Your task to perform on an android device: Open Chrome and go to settings Image 0: 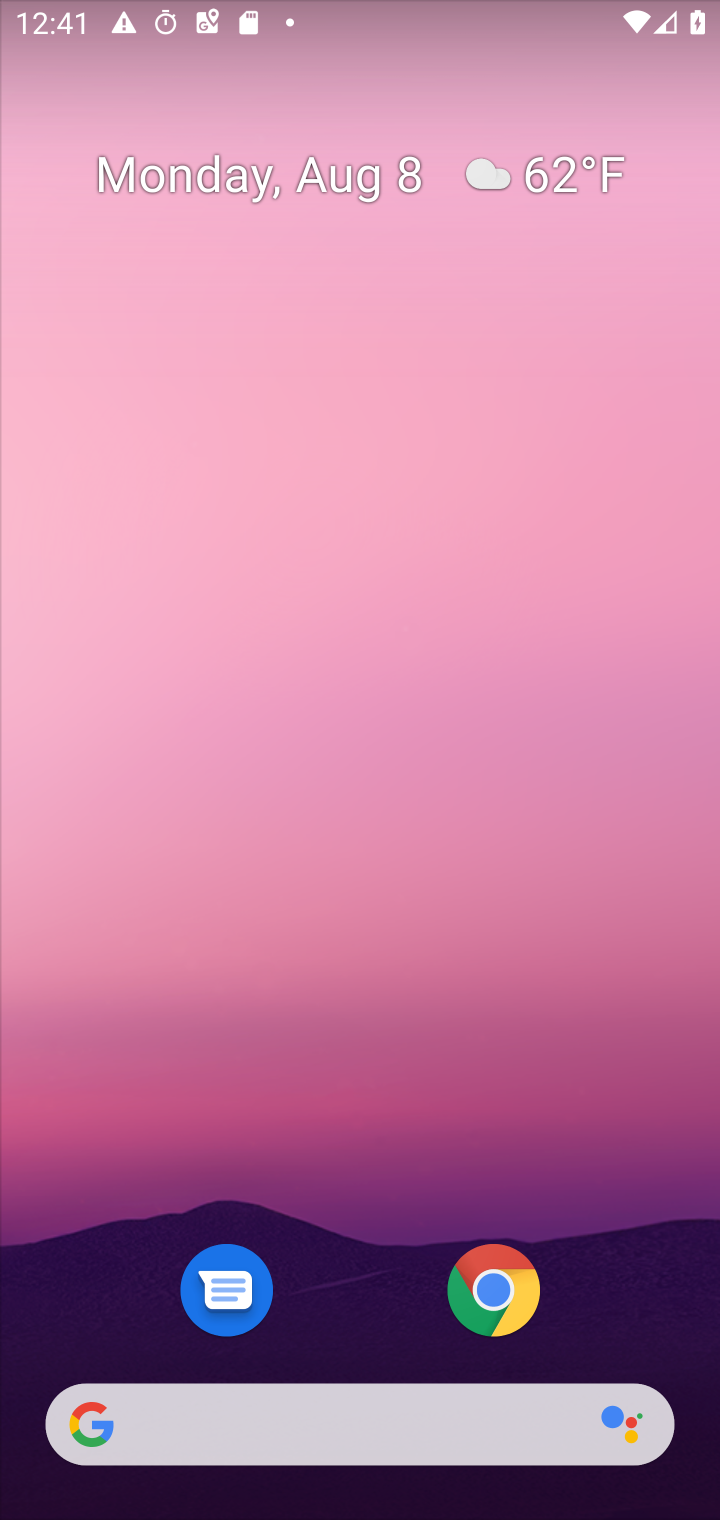
Step 0: press home button
Your task to perform on an android device: Open Chrome and go to settings Image 1: 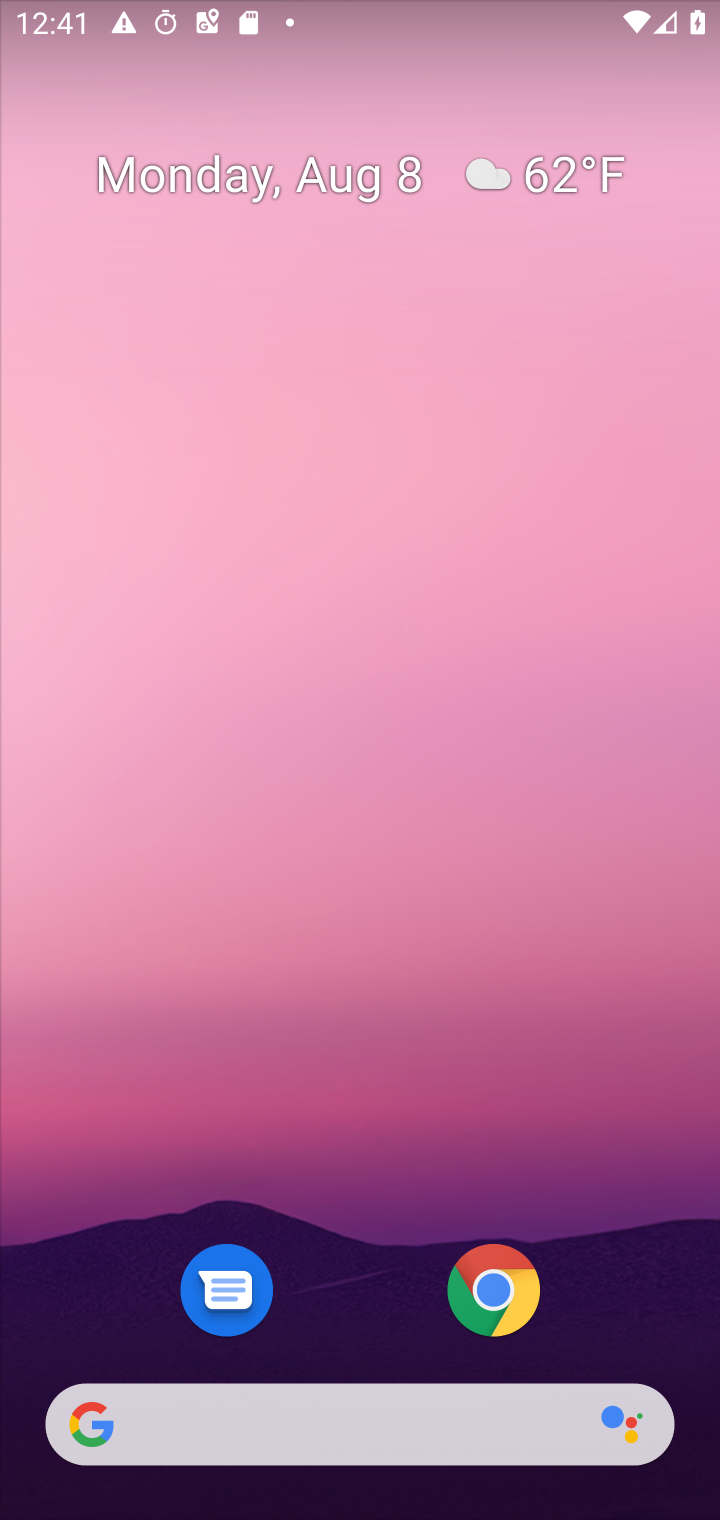
Step 1: click (477, 1279)
Your task to perform on an android device: Open Chrome and go to settings Image 2: 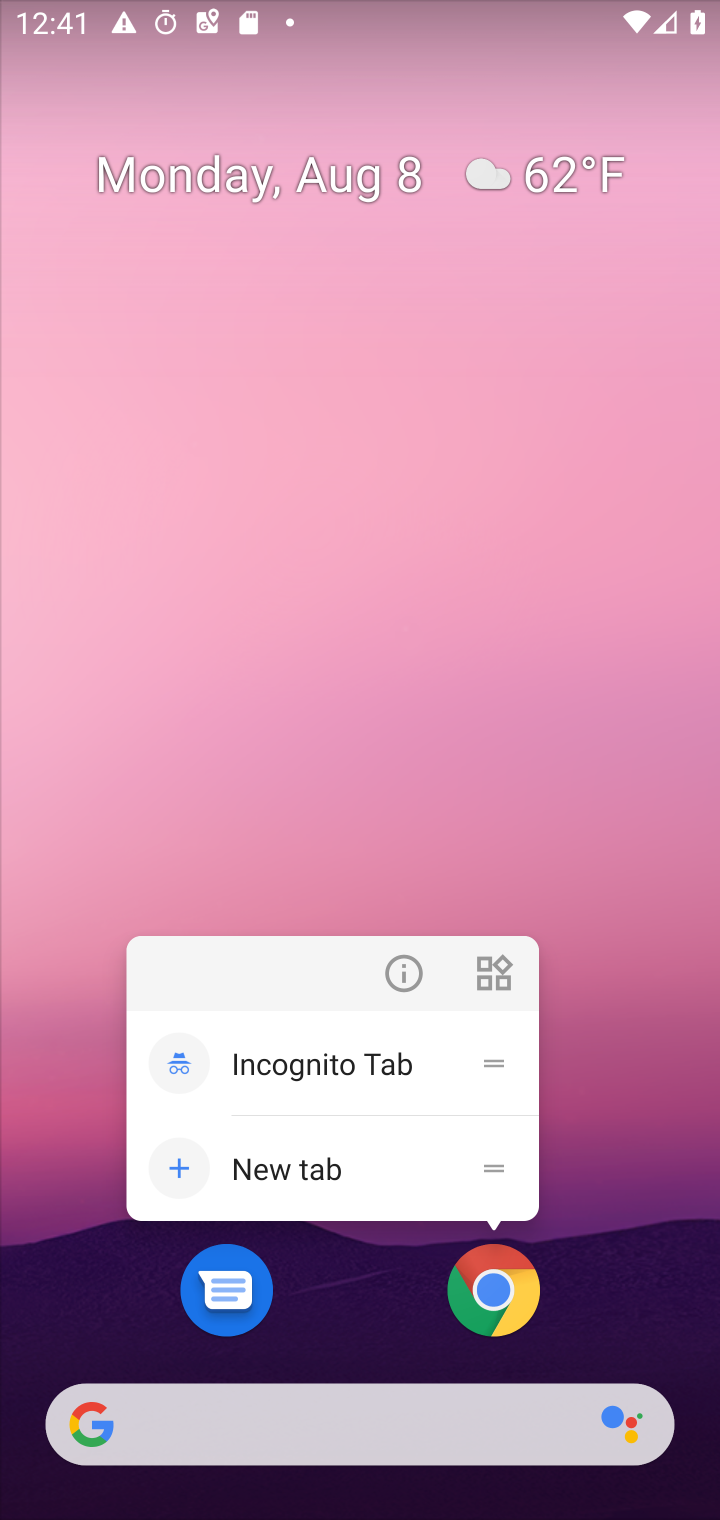
Step 2: click (483, 1279)
Your task to perform on an android device: Open Chrome and go to settings Image 3: 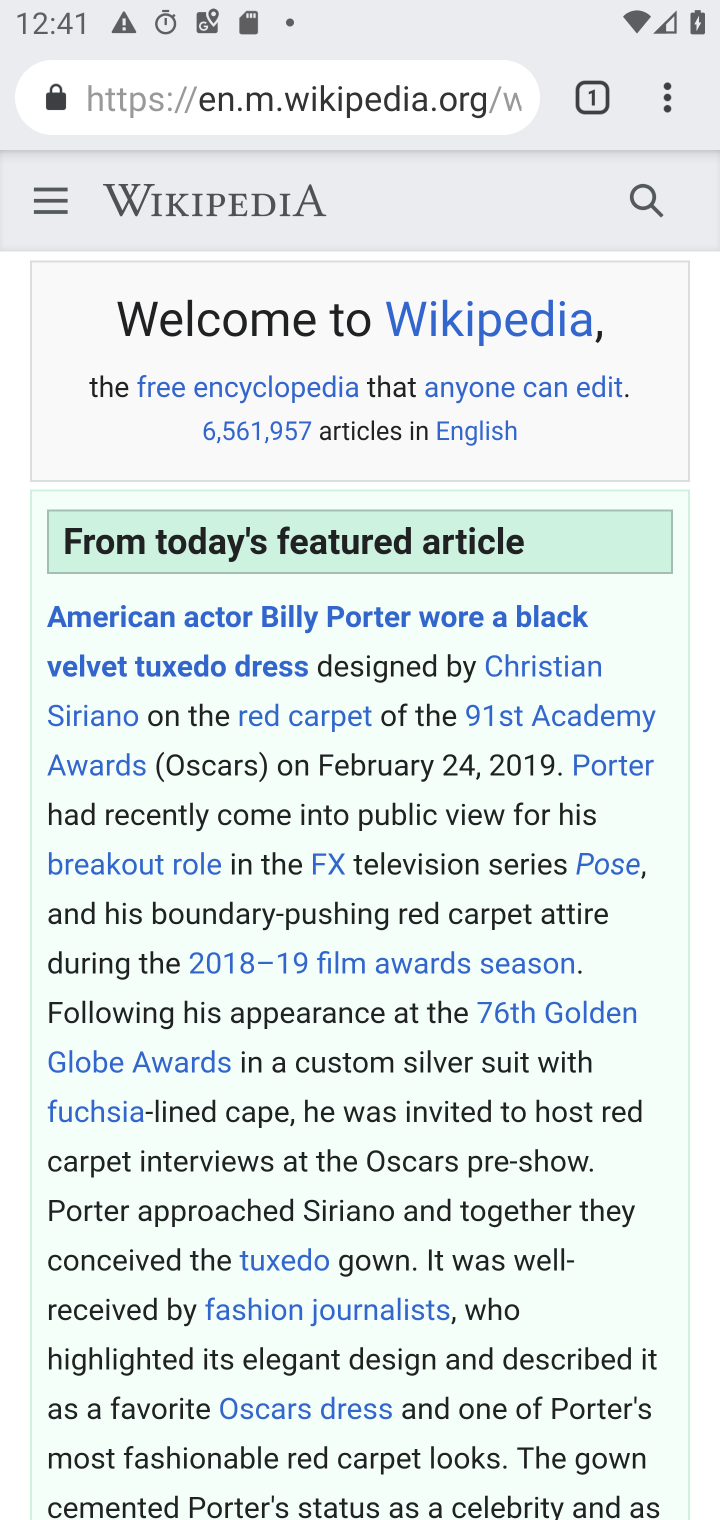
Step 3: click (671, 100)
Your task to perform on an android device: Open Chrome and go to settings Image 4: 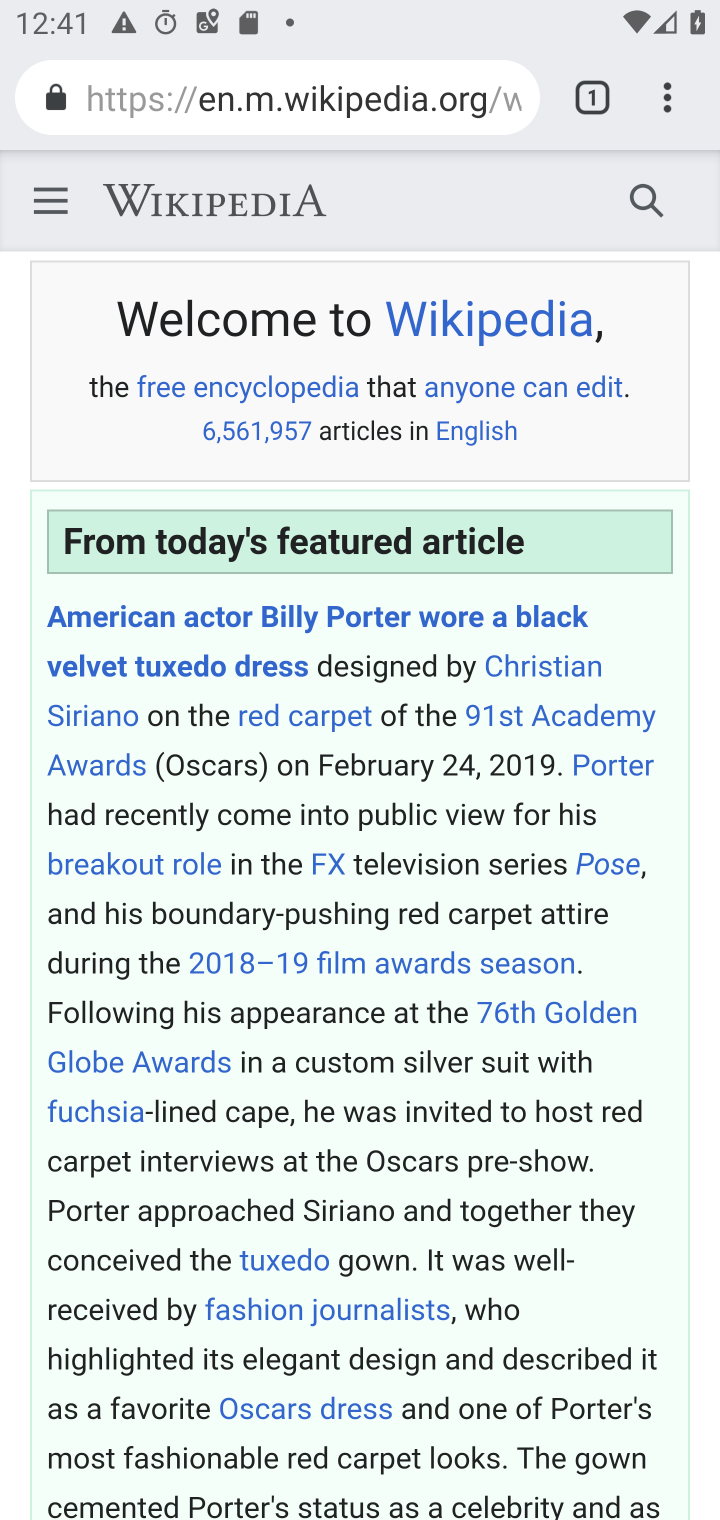
Step 4: click (662, 90)
Your task to perform on an android device: Open Chrome and go to settings Image 5: 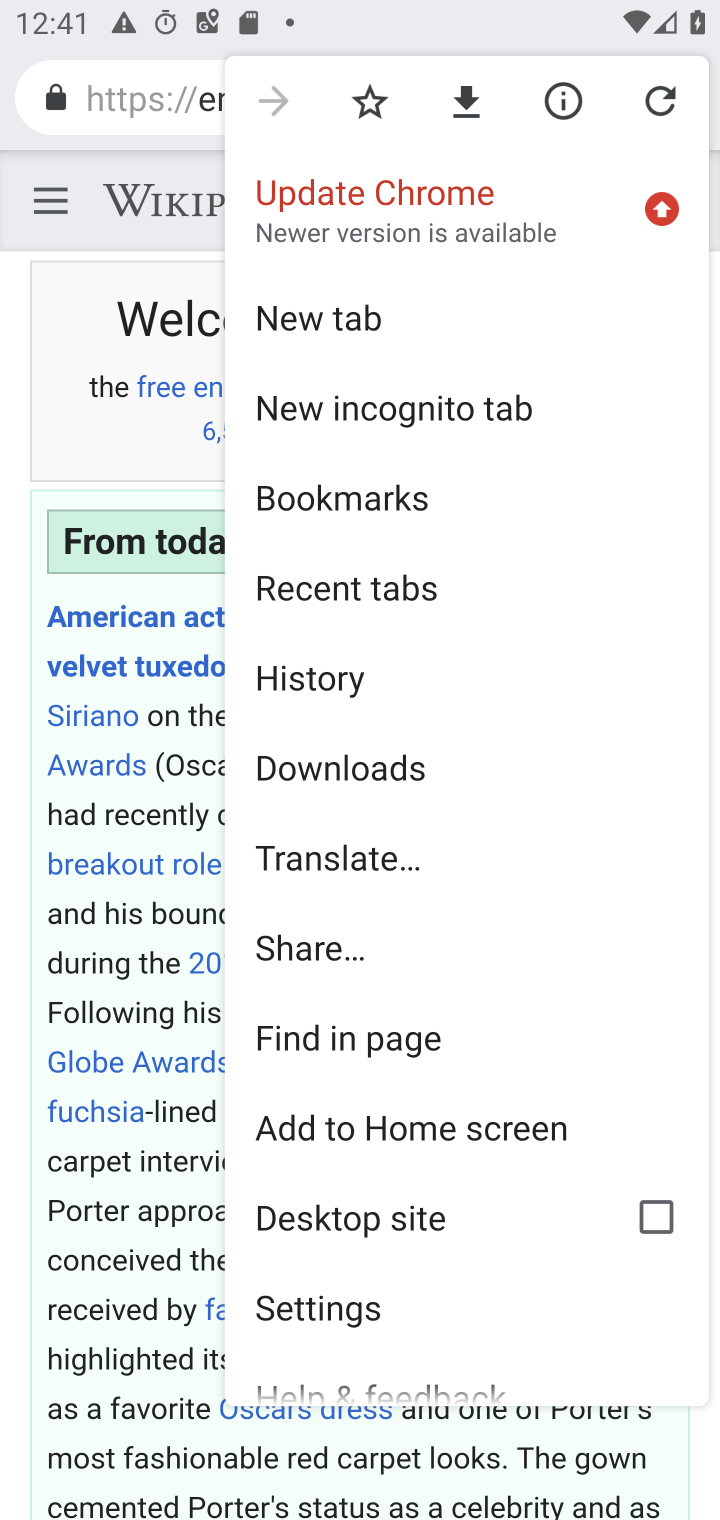
Step 5: click (353, 1308)
Your task to perform on an android device: Open Chrome and go to settings Image 6: 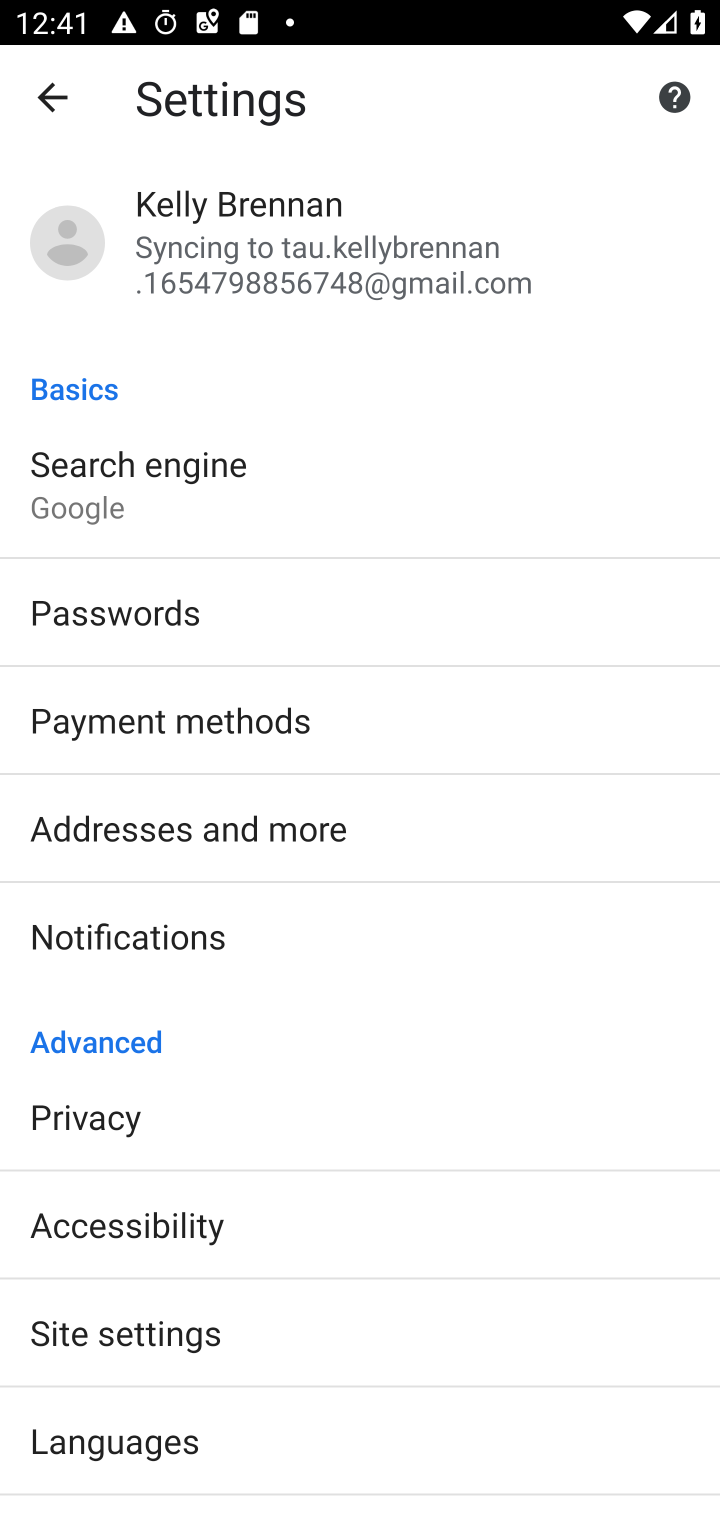
Step 6: task complete